Your task to perform on an android device: open wifi settings Image 0: 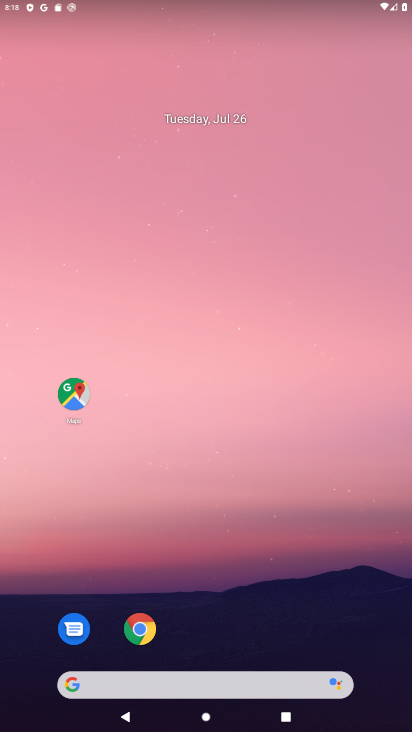
Step 0: press home button
Your task to perform on an android device: open wifi settings Image 1: 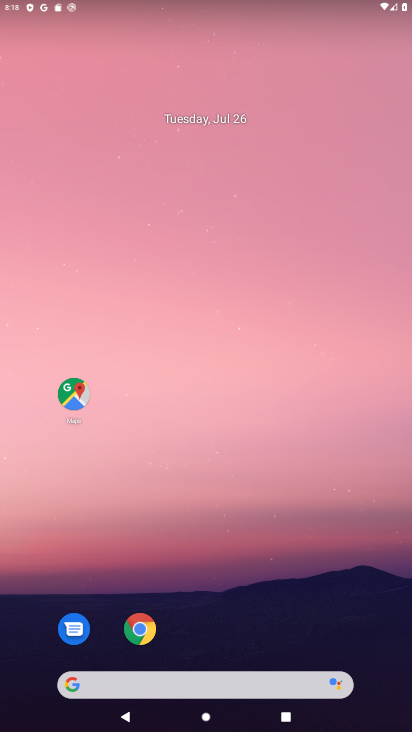
Step 1: drag from (401, 0) to (356, 429)
Your task to perform on an android device: open wifi settings Image 2: 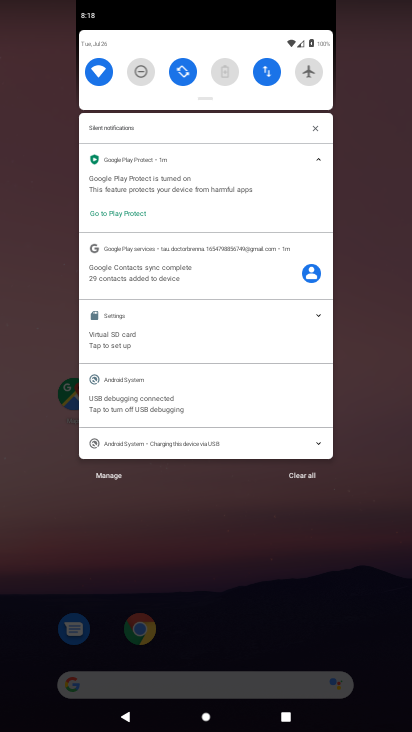
Step 2: click (92, 66)
Your task to perform on an android device: open wifi settings Image 3: 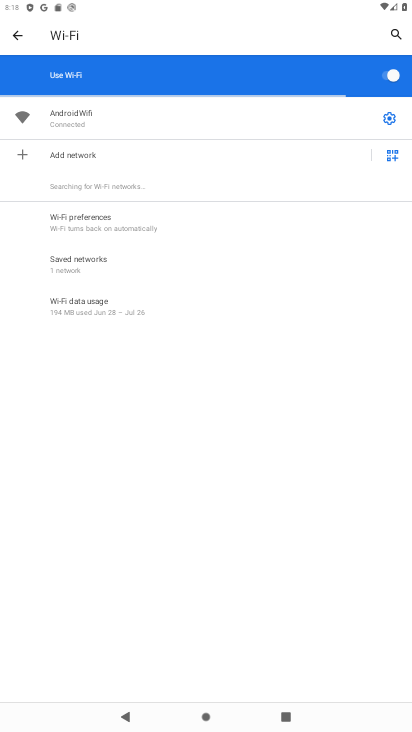
Step 3: task complete